Your task to perform on an android device: What's the weather today? Image 0: 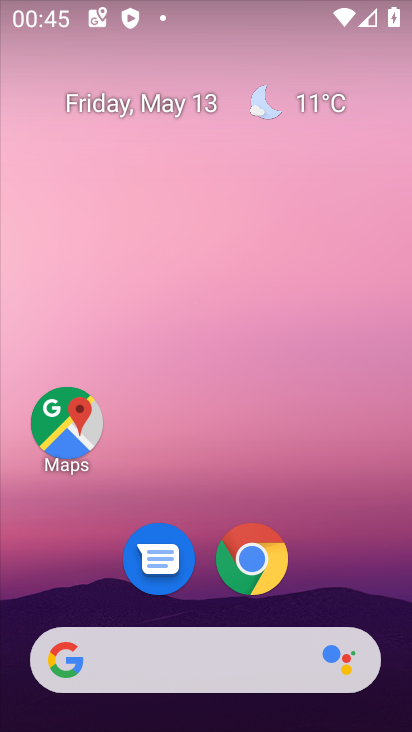
Step 0: drag from (203, 589) to (196, 199)
Your task to perform on an android device: What's the weather today? Image 1: 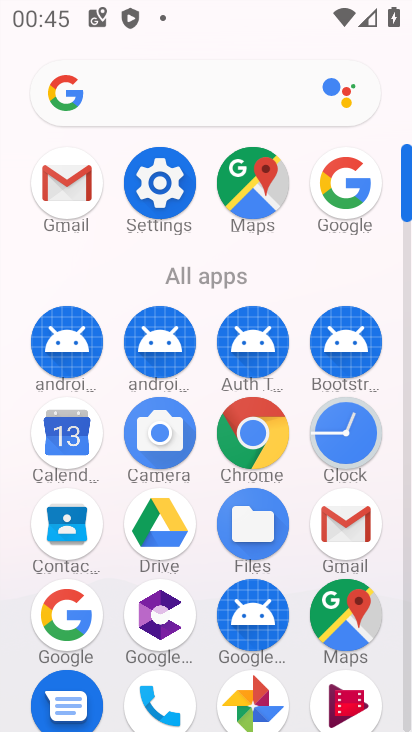
Step 1: drag from (202, 647) to (195, 490)
Your task to perform on an android device: What's the weather today? Image 2: 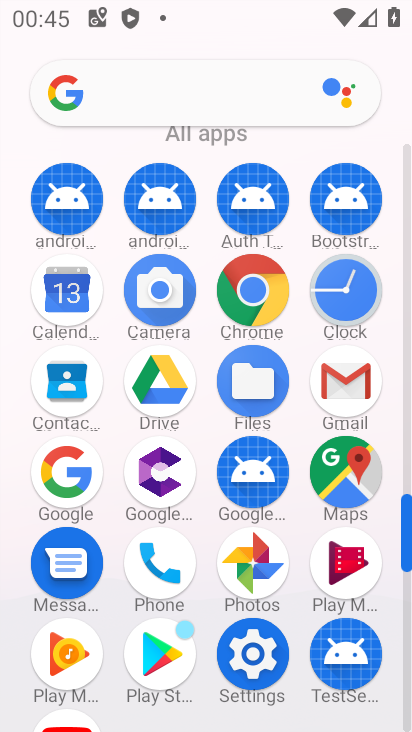
Step 2: click (64, 475)
Your task to perform on an android device: What's the weather today? Image 3: 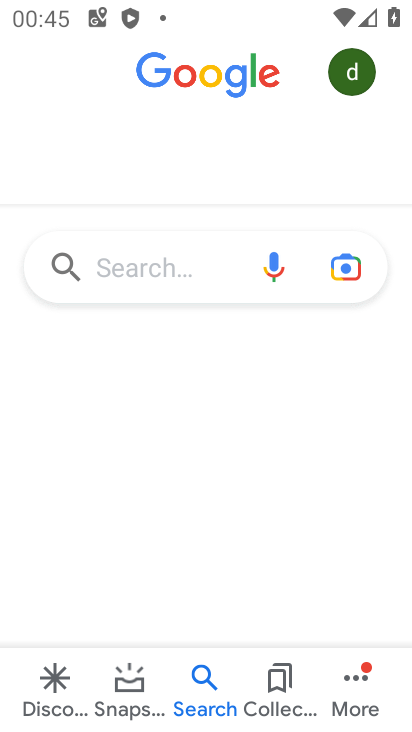
Step 3: click (146, 249)
Your task to perform on an android device: What's the weather today? Image 4: 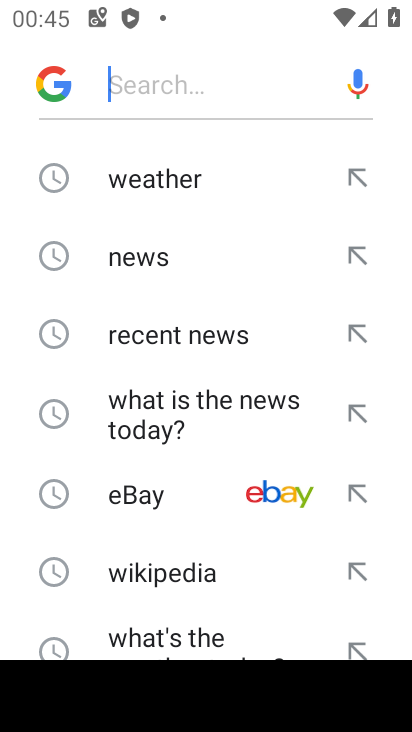
Step 4: click (166, 196)
Your task to perform on an android device: What's the weather today? Image 5: 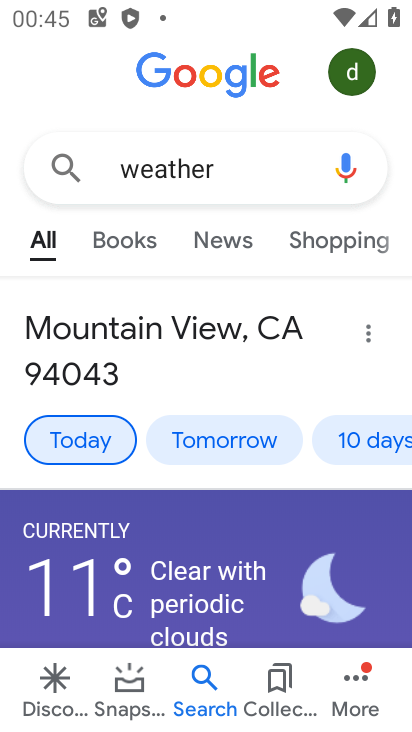
Step 5: task complete